Your task to perform on an android device: Show me the alarms in the clock app Image 0: 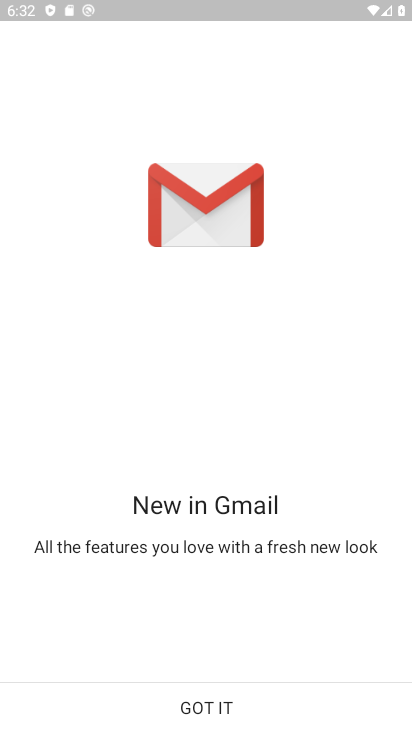
Step 0: press home button
Your task to perform on an android device: Show me the alarms in the clock app Image 1: 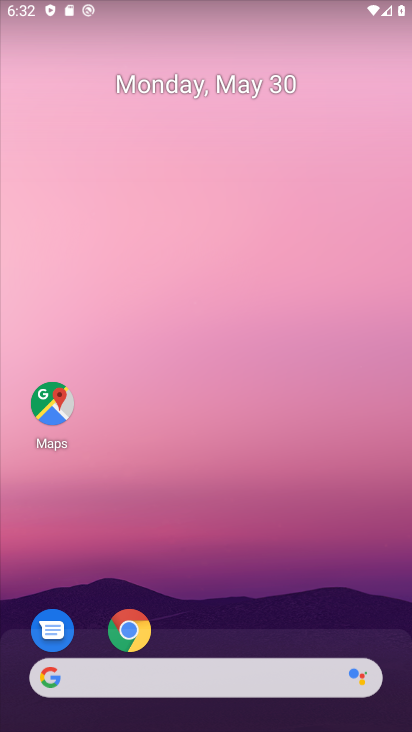
Step 1: drag from (375, 620) to (113, 1)
Your task to perform on an android device: Show me the alarms in the clock app Image 2: 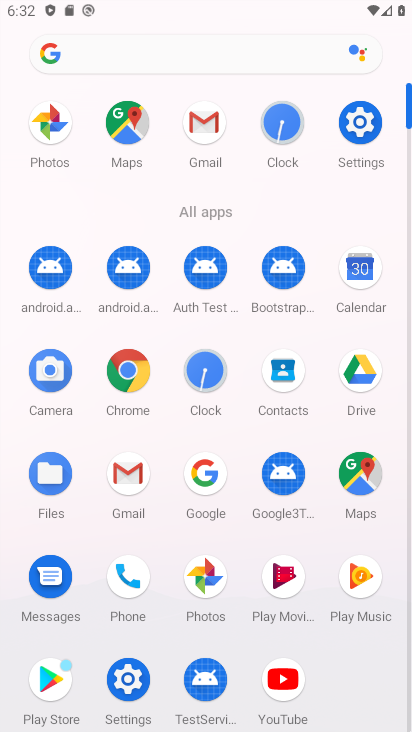
Step 2: click (211, 357)
Your task to perform on an android device: Show me the alarms in the clock app Image 3: 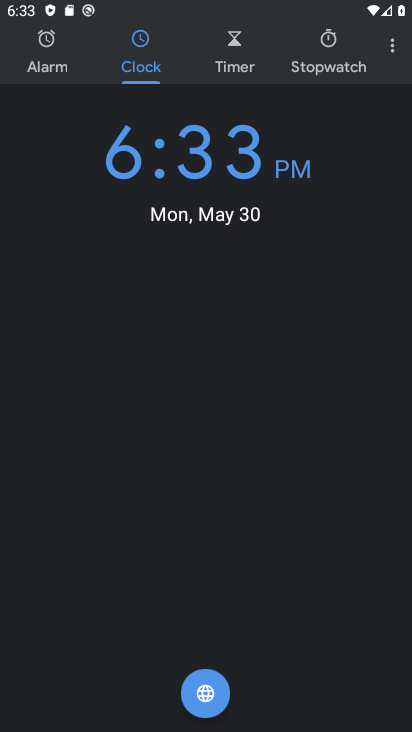
Step 3: click (23, 33)
Your task to perform on an android device: Show me the alarms in the clock app Image 4: 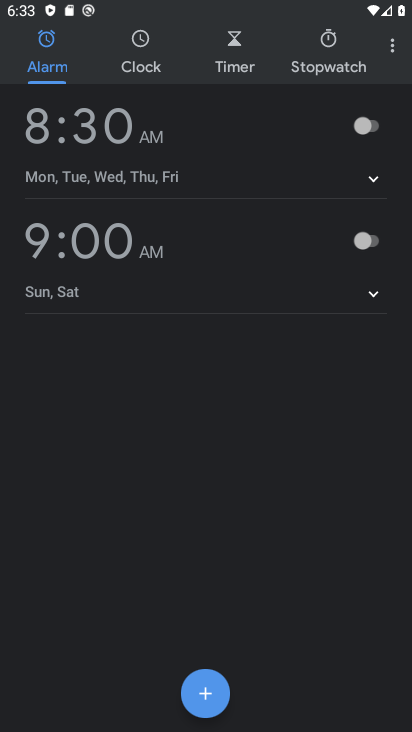
Step 4: task complete